Your task to perform on an android device: turn notification dots off Image 0: 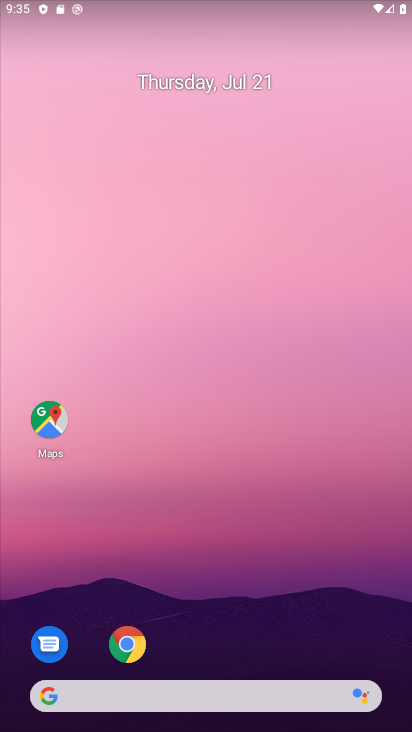
Step 0: task complete